Your task to perform on an android device: Open Google Chrome and click the shortcut for Amazon.com Image 0: 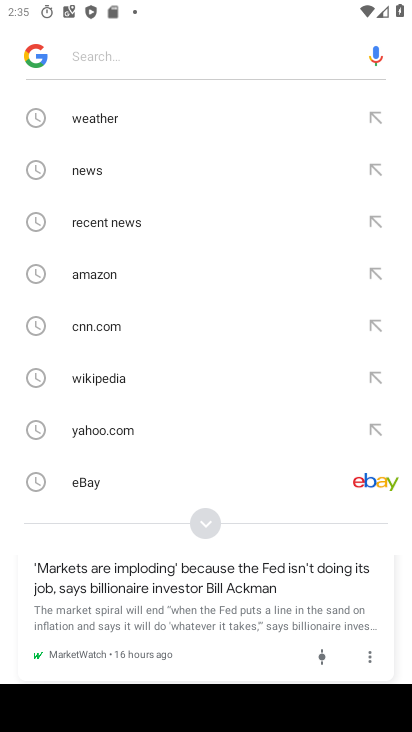
Step 0: press back button
Your task to perform on an android device: Open Google Chrome and click the shortcut for Amazon.com Image 1: 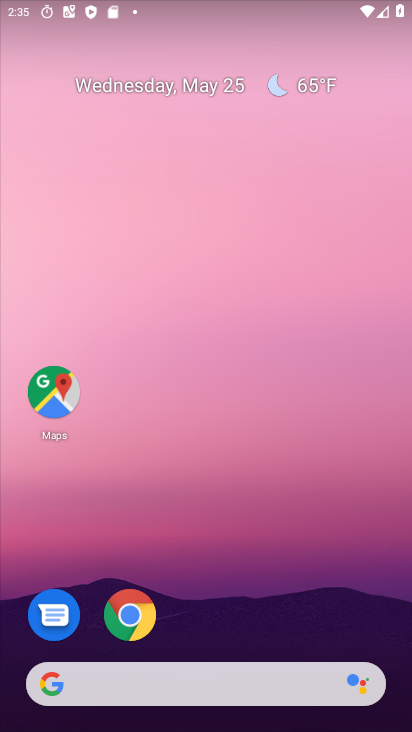
Step 1: click (134, 606)
Your task to perform on an android device: Open Google Chrome and click the shortcut for Amazon.com Image 2: 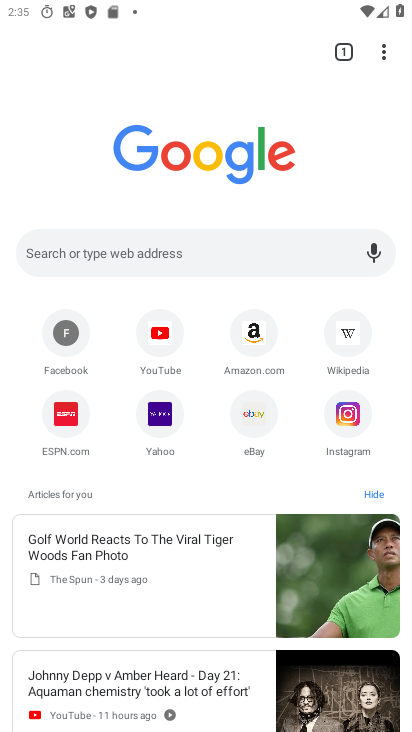
Step 2: click (239, 329)
Your task to perform on an android device: Open Google Chrome and click the shortcut for Amazon.com Image 3: 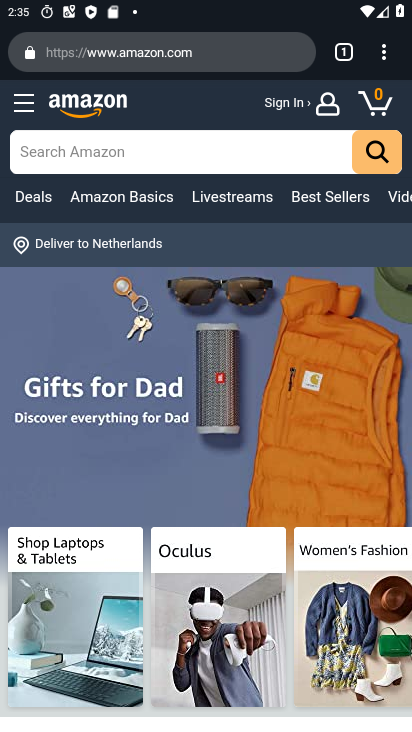
Step 3: task complete